Your task to perform on an android device: Is it going to rain tomorrow? Image 0: 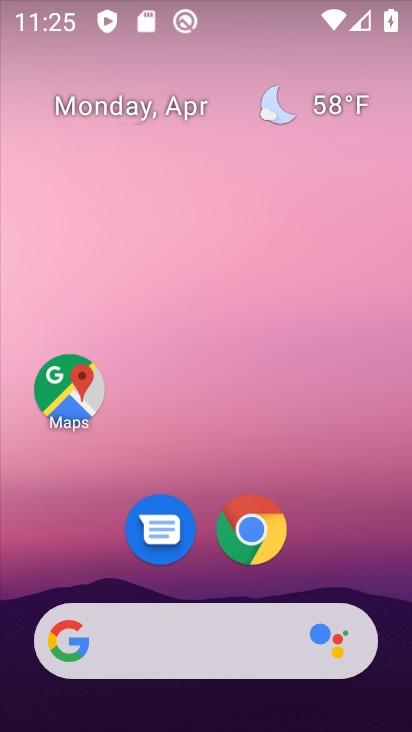
Step 0: drag from (384, 579) to (247, 64)
Your task to perform on an android device: Is it going to rain tomorrow? Image 1: 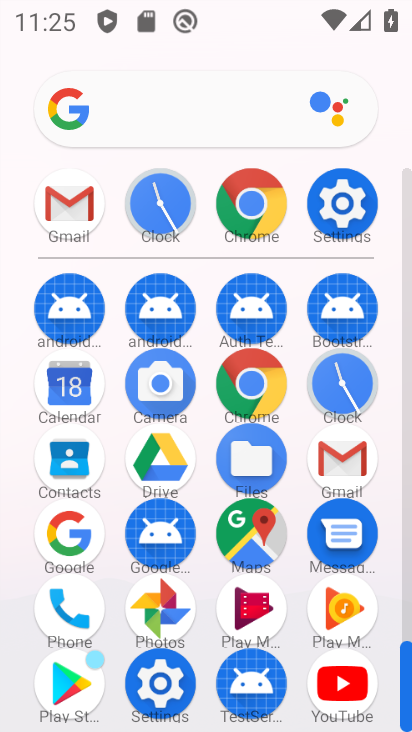
Step 1: press back button
Your task to perform on an android device: Is it going to rain tomorrow? Image 2: 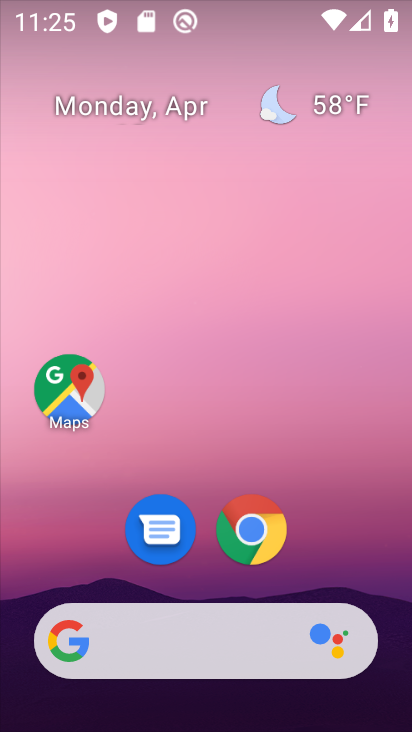
Step 2: click (321, 121)
Your task to perform on an android device: Is it going to rain tomorrow? Image 3: 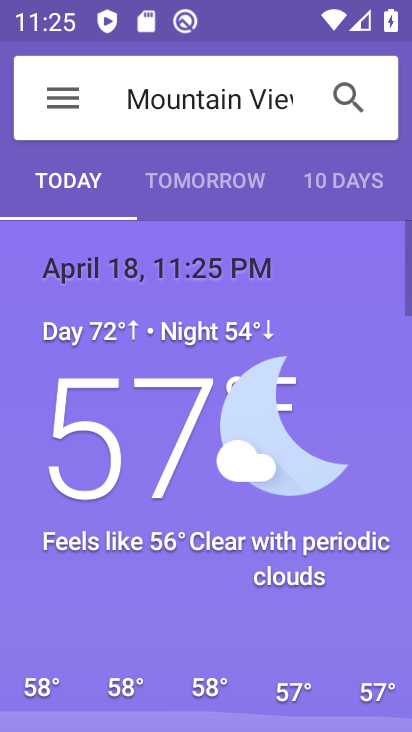
Step 3: click (172, 181)
Your task to perform on an android device: Is it going to rain tomorrow? Image 4: 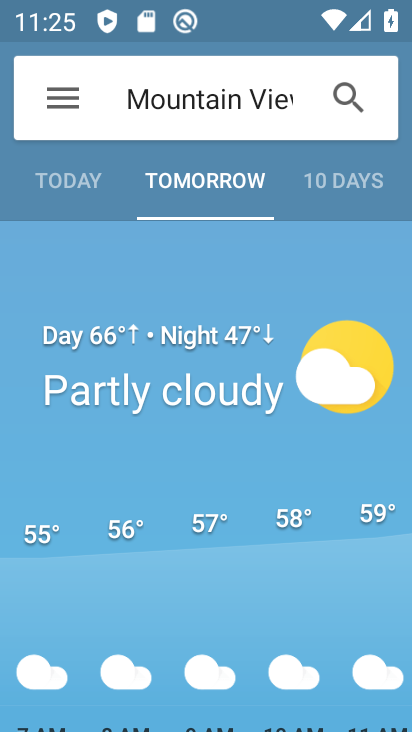
Step 4: task complete